Your task to perform on an android device: When is my next appointment? Image 0: 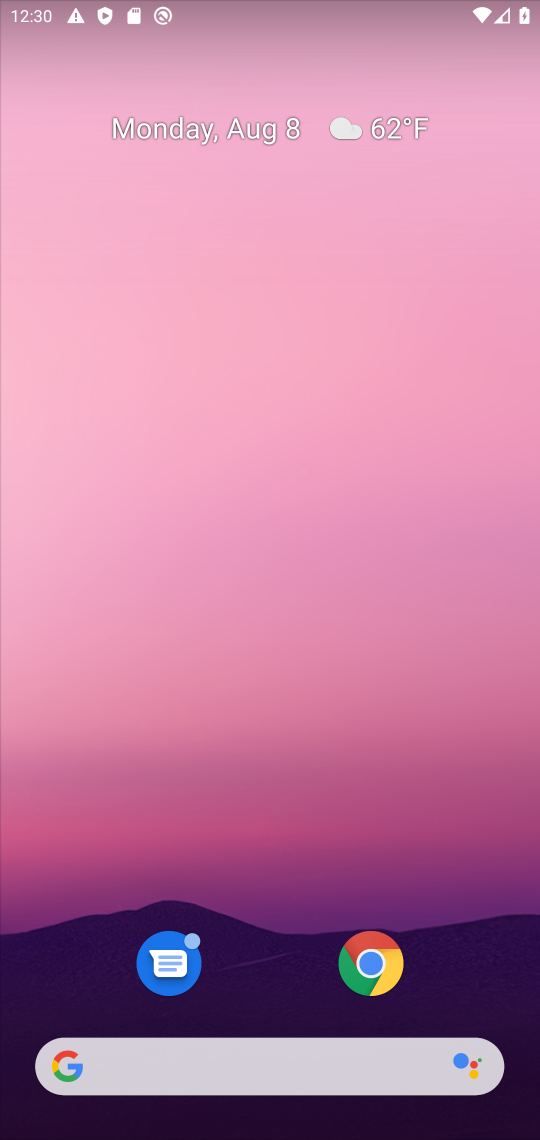
Step 0: drag from (513, 930) to (204, 39)
Your task to perform on an android device: When is my next appointment? Image 1: 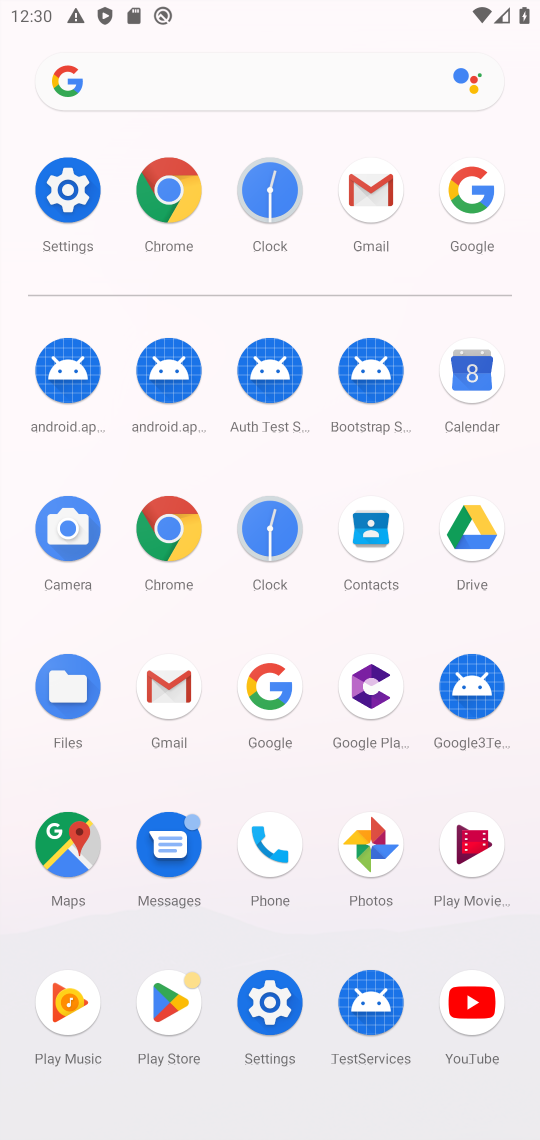
Step 1: click (475, 391)
Your task to perform on an android device: When is my next appointment? Image 2: 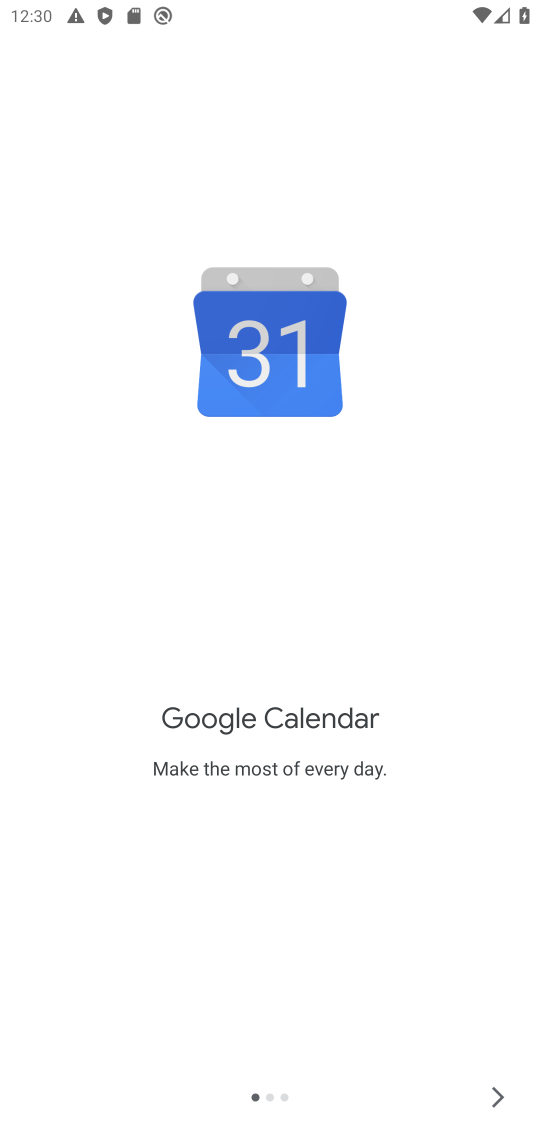
Step 2: click (503, 1095)
Your task to perform on an android device: When is my next appointment? Image 3: 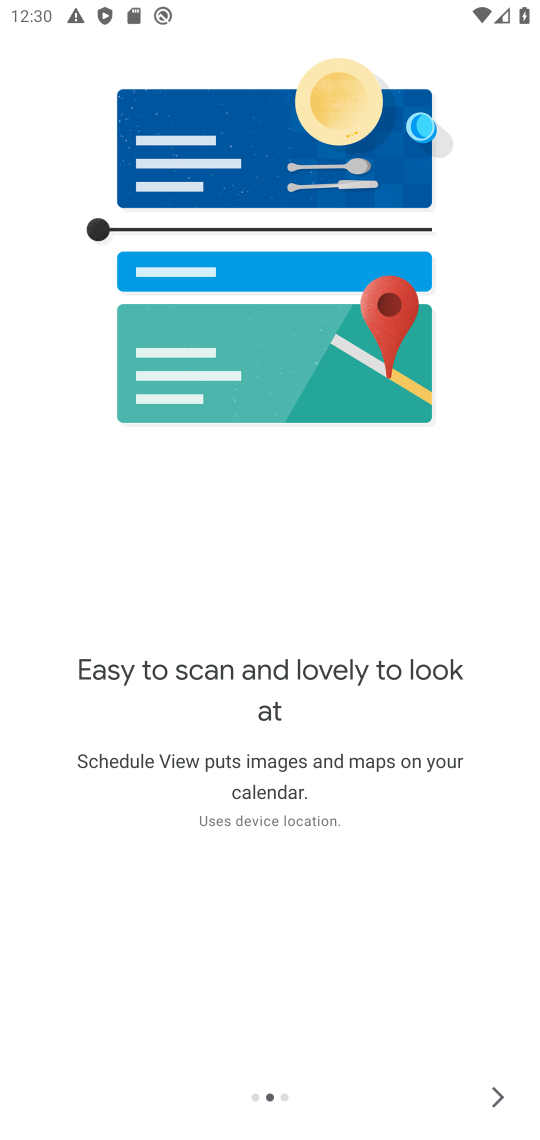
Step 3: click (503, 1095)
Your task to perform on an android device: When is my next appointment? Image 4: 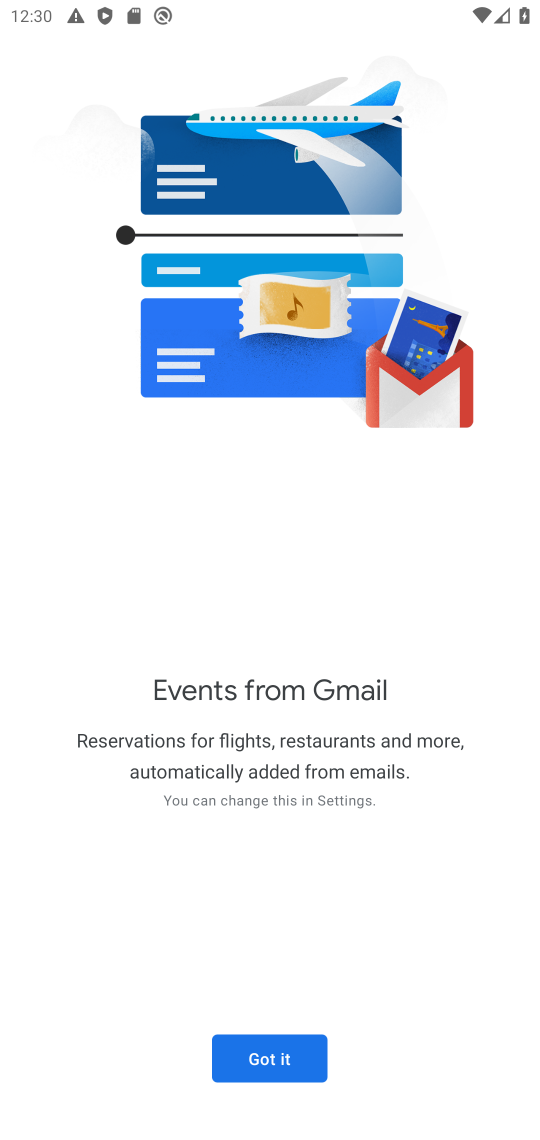
Step 4: click (266, 1058)
Your task to perform on an android device: When is my next appointment? Image 5: 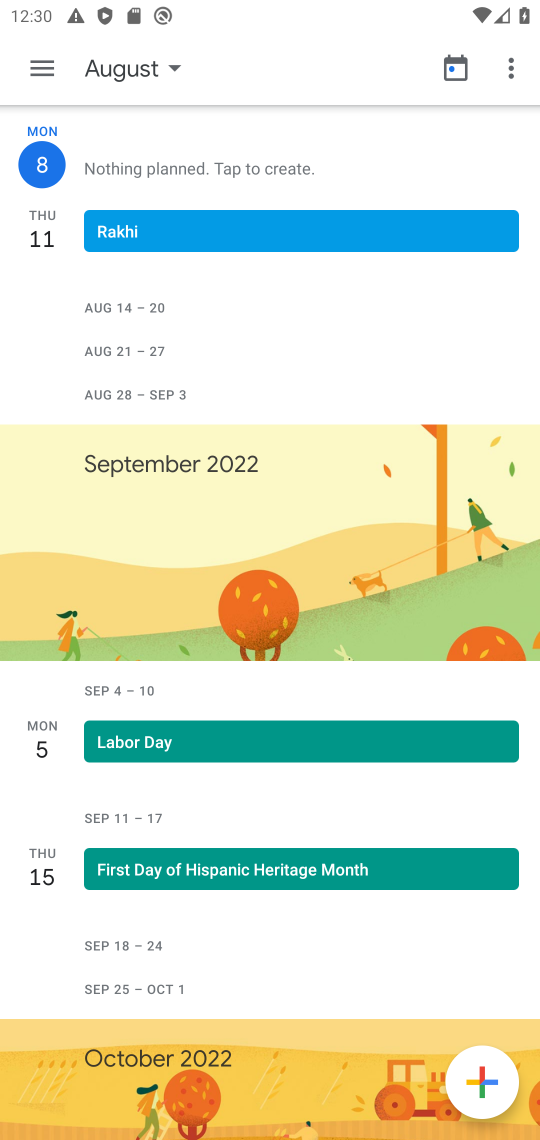
Step 5: task complete